Your task to perform on an android device: change the clock display to digital Image 0: 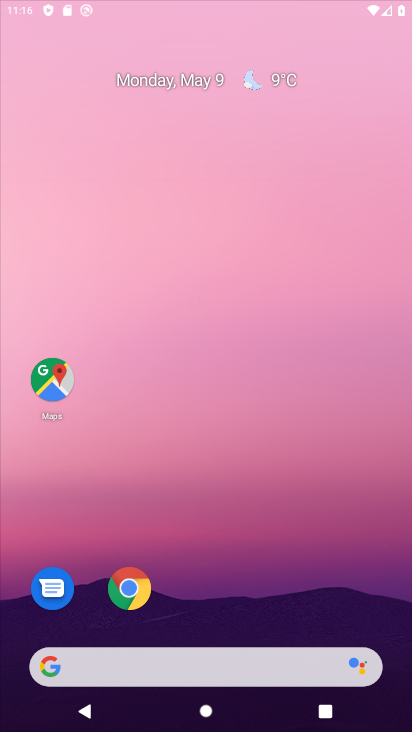
Step 0: click (262, 134)
Your task to perform on an android device: change the clock display to digital Image 1: 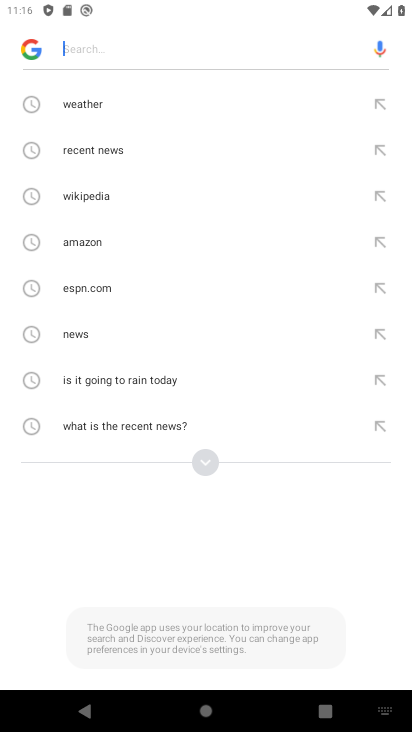
Step 1: press home button
Your task to perform on an android device: change the clock display to digital Image 2: 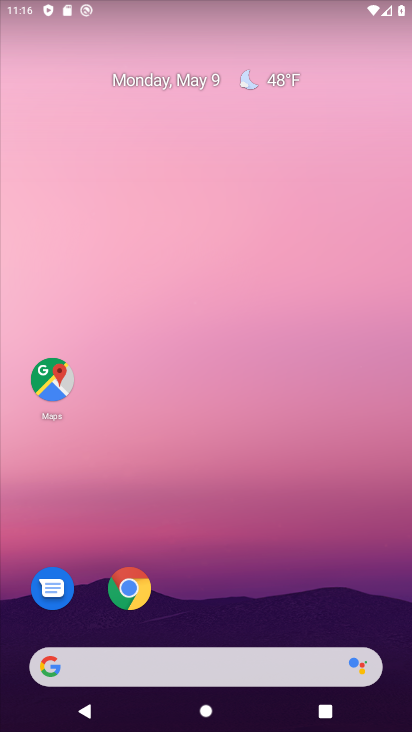
Step 2: drag from (279, 588) to (299, 198)
Your task to perform on an android device: change the clock display to digital Image 3: 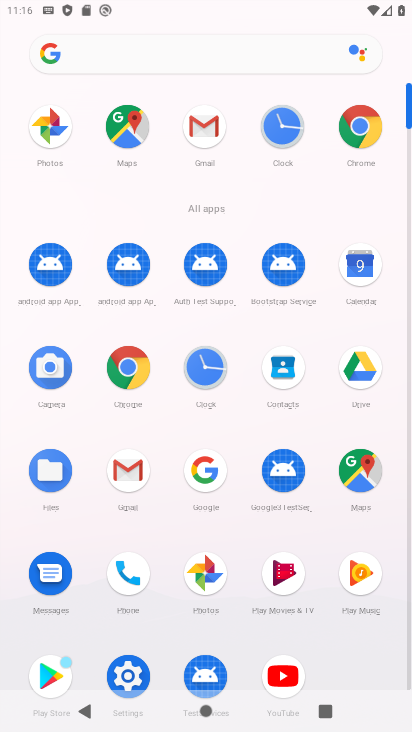
Step 3: click (200, 358)
Your task to perform on an android device: change the clock display to digital Image 4: 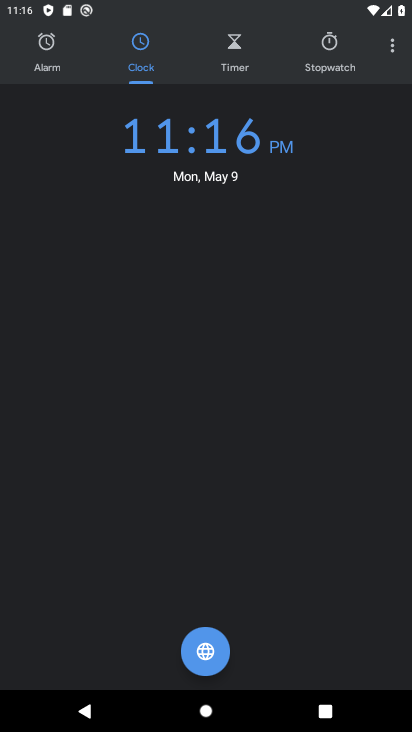
Step 4: click (377, 48)
Your task to perform on an android device: change the clock display to digital Image 5: 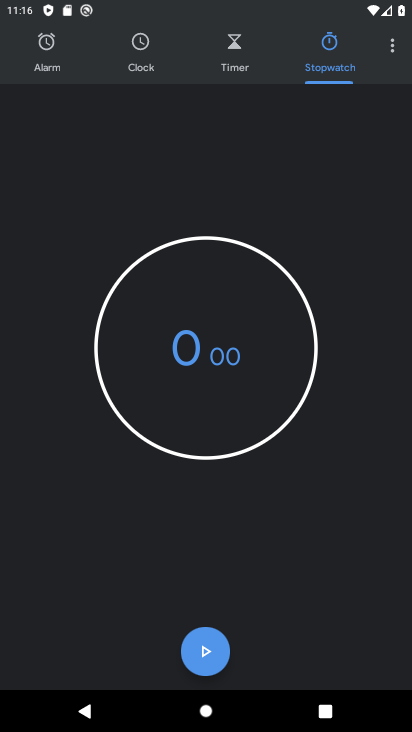
Step 5: click (395, 53)
Your task to perform on an android device: change the clock display to digital Image 6: 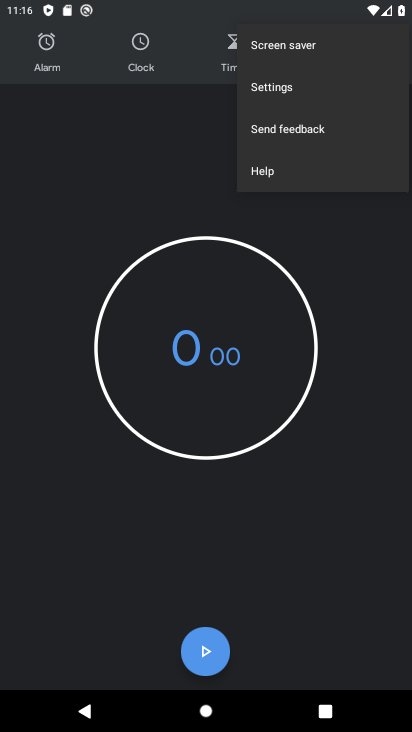
Step 6: click (282, 72)
Your task to perform on an android device: change the clock display to digital Image 7: 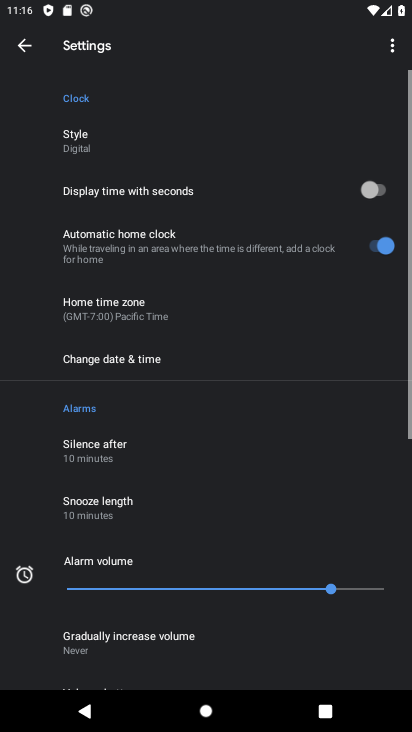
Step 7: click (119, 143)
Your task to perform on an android device: change the clock display to digital Image 8: 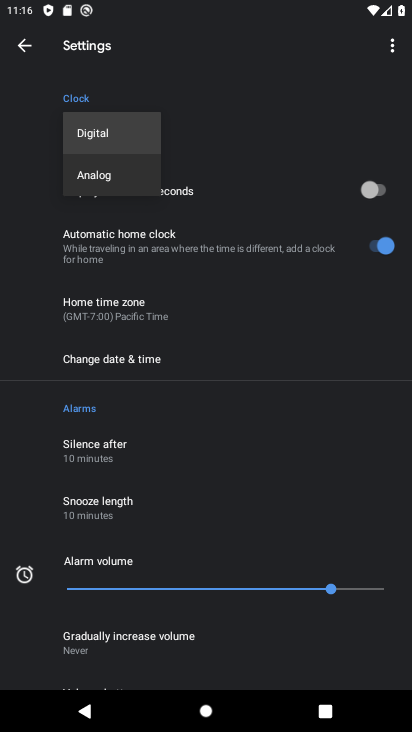
Step 8: click (120, 174)
Your task to perform on an android device: change the clock display to digital Image 9: 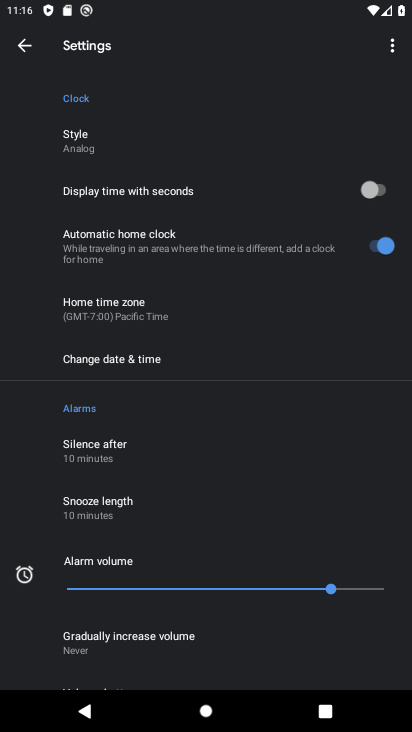
Step 9: task complete